Your task to perform on an android device: turn on the 24-hour format for clock Image 0: 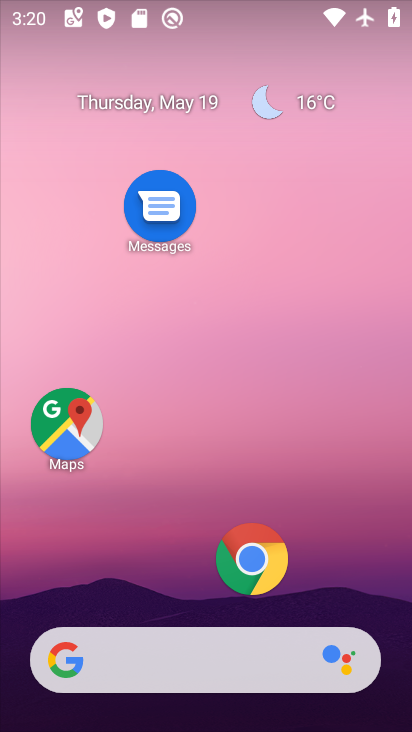
Step 0: drag from (177, 597) to (223, 220)
Your task to perform on an android device: turn on the 24-hour format for clock Image 1: 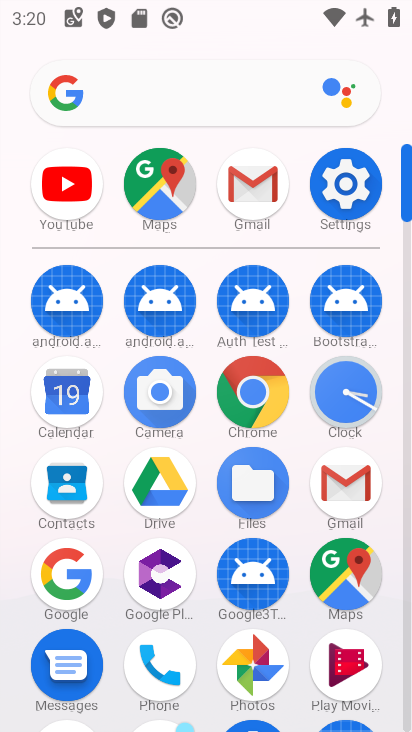
Step 1: click (352, 412)
Your task to perform on an android device: turn on the 24-hour format for clock Image 2: 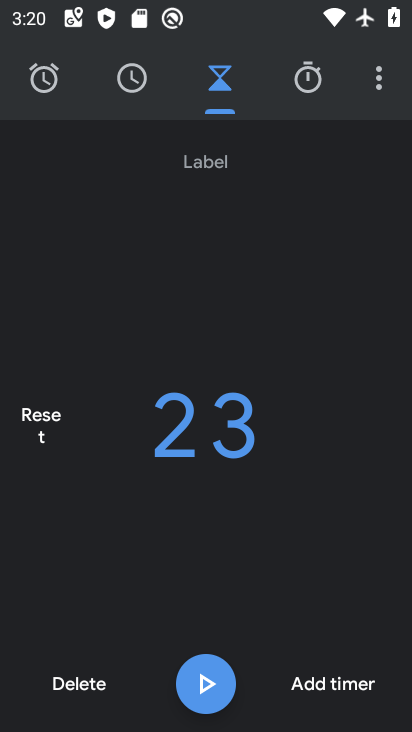
Step 2: click (373, 81)
Your task to perform on an android device: turn on the 24-hour format for clock Image 3: 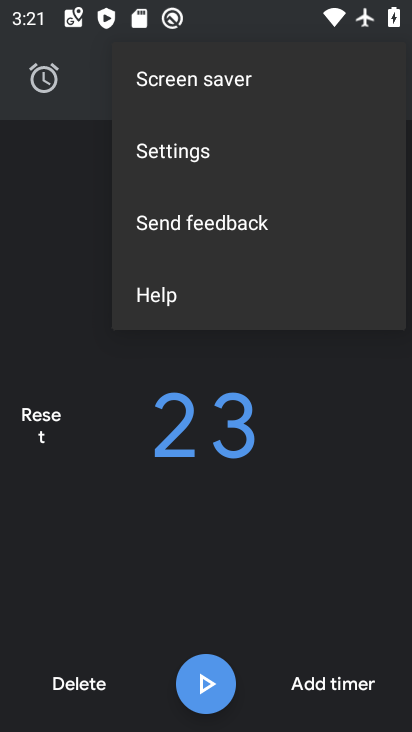
Step 3: click (180, 171)
Your task to perform on an android device: turn on the 24-hour format for clock Image 4: 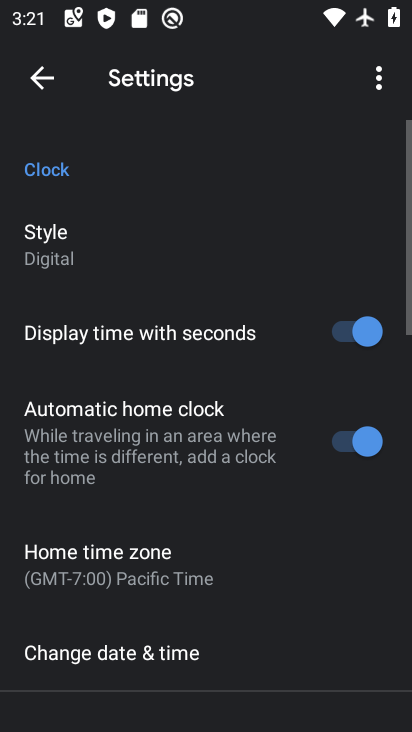
Step 4: drag from (160, 565) to (166, 330)
Your task to perform on an android device: turn on the 24-hour format for clock Image 5: 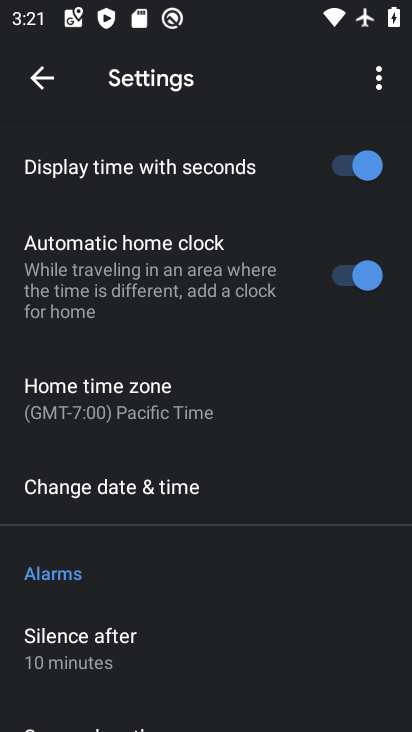
Step 5: drag from (204, 601) to (209, 399)
Your task to perform on an android device: turn on the 24-hour format for clock Image 6: 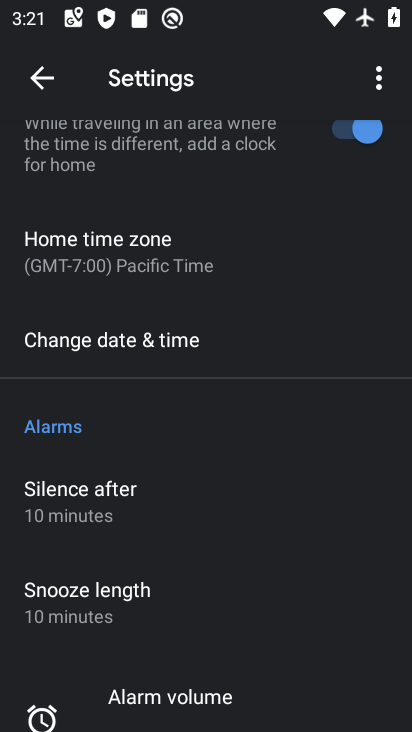
Step 6: drag from (161, 575) to (190, 394)
Your task to perform on an android device: turn on the 24-hour format for clock Image 7: 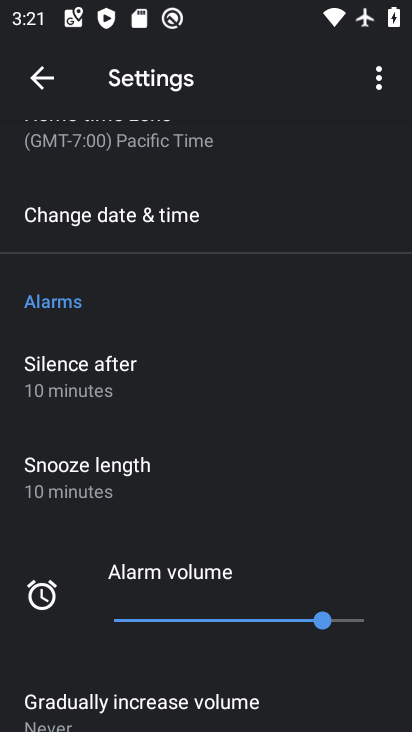
Step 7: click (186, 206)
Your task to perform on an android device: turn on the 24-hour format for clock Image 8: 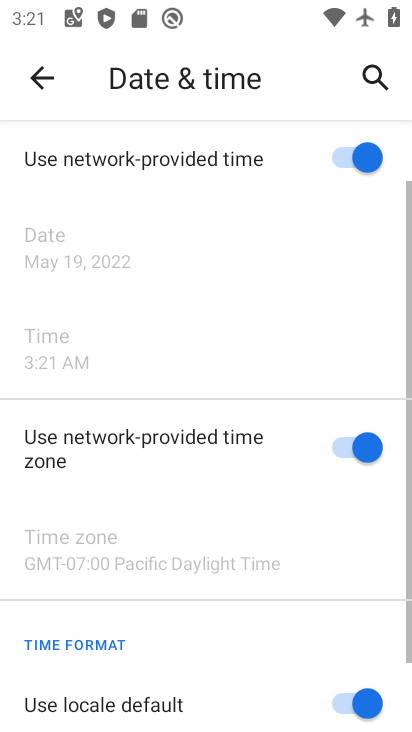
Step 8: drag from (232, 549) to (236, 284)
Your task to perform on an android device: turn on the 24-hour format for clock Image 9: 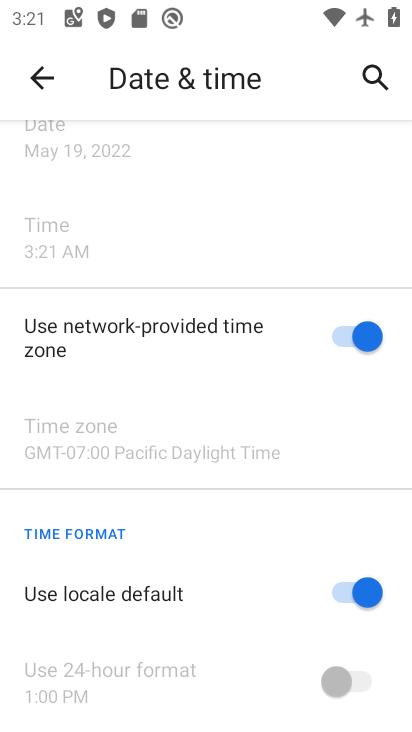
Step 9: drag from (218, 563) to (230, 379)
Your task to perform on an android device: turn on the 24-hour format for clock Image 10: 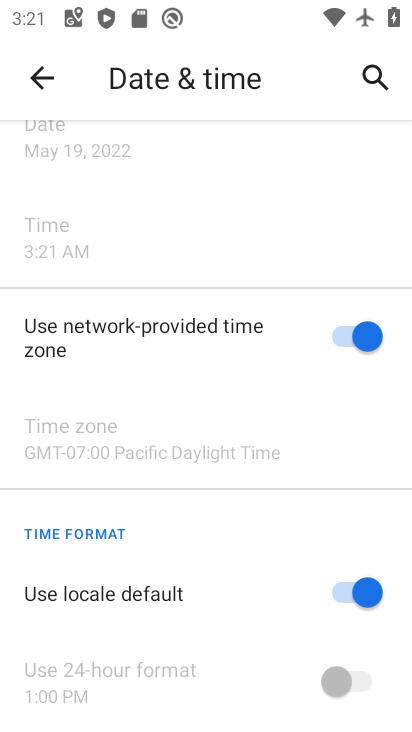
Step 10: click (344, 587)
Your task to perform on an android device: turn on the 24-hour format for clock Image 11: 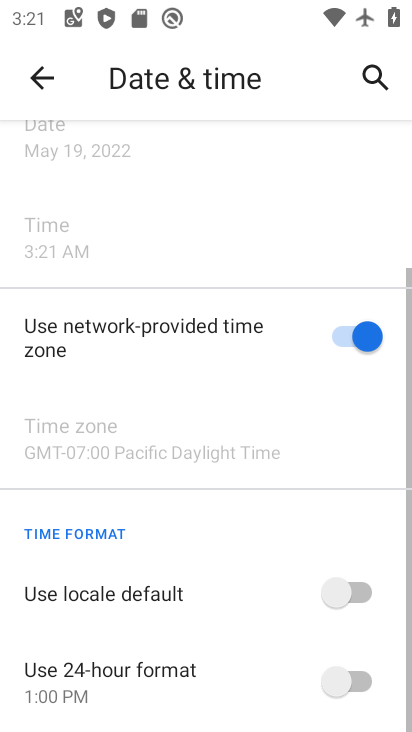
Step 11: click (364, 679)
Your task to perform on an android device: turn on the 24-hour format for clock Image 12: 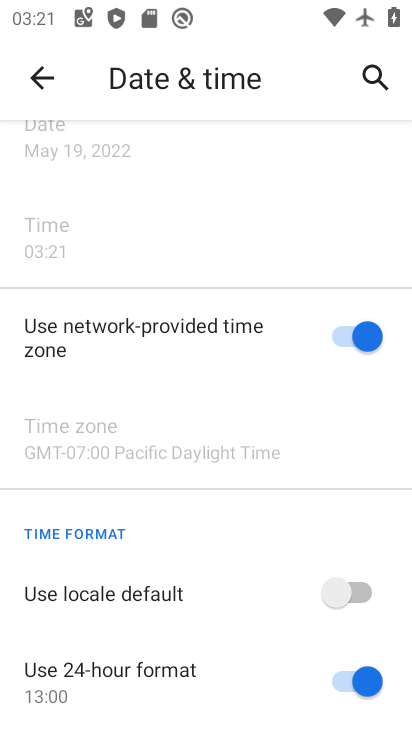
Step 12: task complete